Your task to perform on an android device: Search for vegetarian restaurants on Maps Image 0: 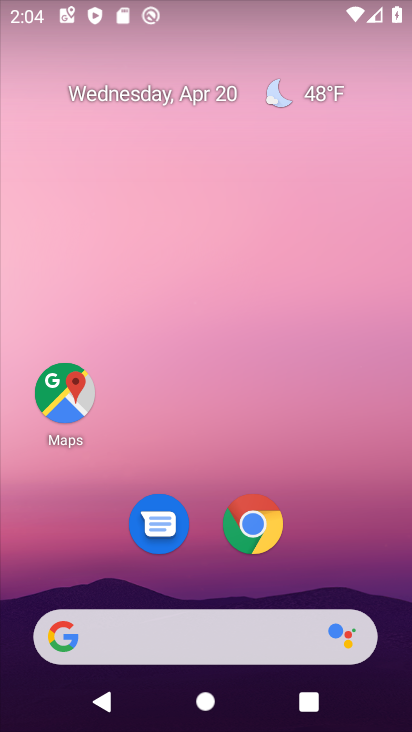
Step 0: click (67, 381)
Your task to perform on an android device: Search for vegetarian restaurants on Maps Image 1: 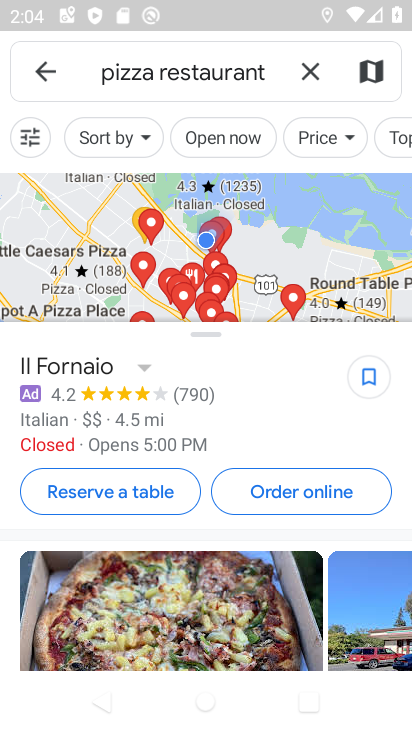
Step 1: click (314, 67)
Your task to perform on an android device: Search for vegetarian restaurants on Maps Image 2: 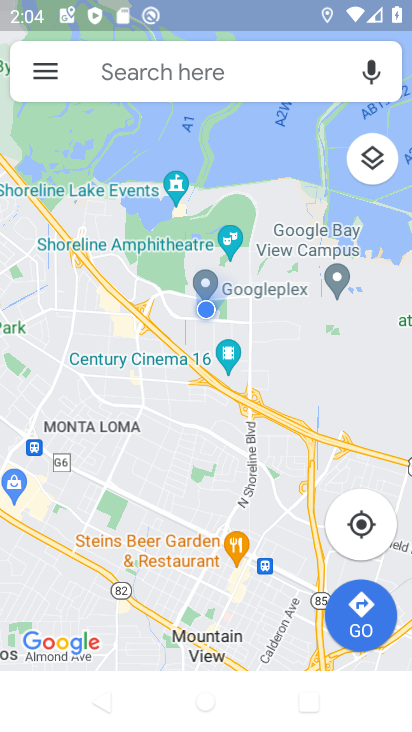
Step 2: click (273, 73)
Your task to perform on an android device: Search for vegetarian restaurants on Maps Image 3: 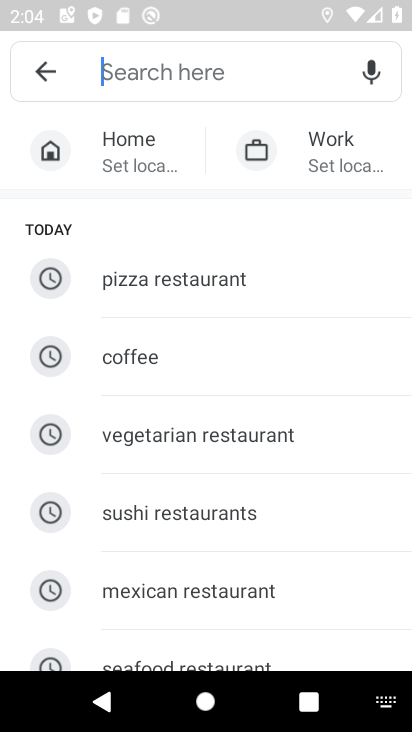
Step 3: click (267, 429)
Your task to perform on an android device: Search for vegetarian restaurants on Maps Image 4: 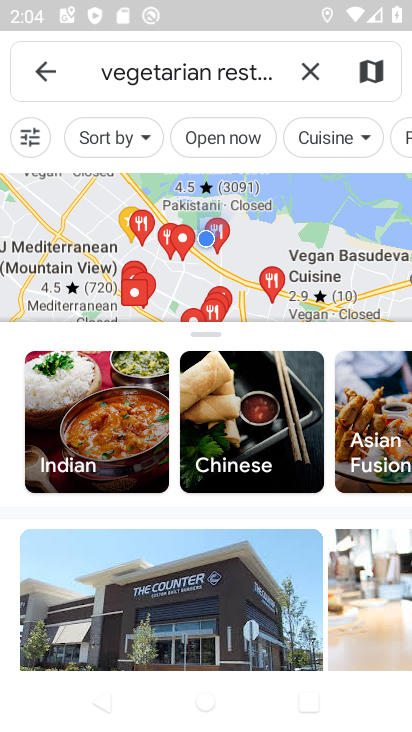
Step 4: task complete